Your task to perform on an android device: change the clock display to show seconds Image 0: 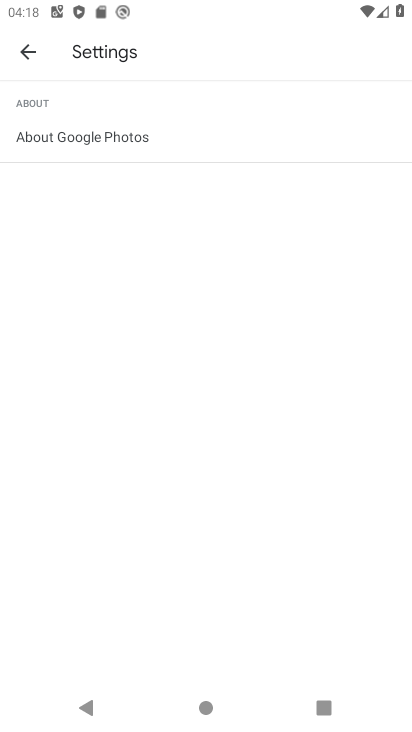
Step 0: press home button
Your task to perform on an android device: change the clock display to show seconds Image 1: 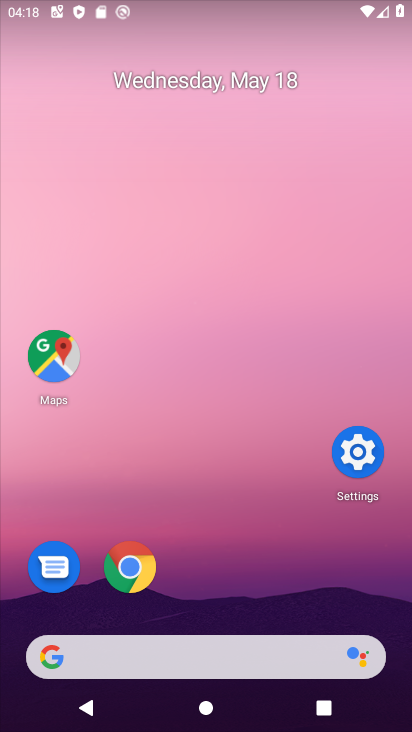
Step 1: drag from (207, 545) to (278, 96)
Your task to perform on an android device: change the clock display to show seconds Image 2: 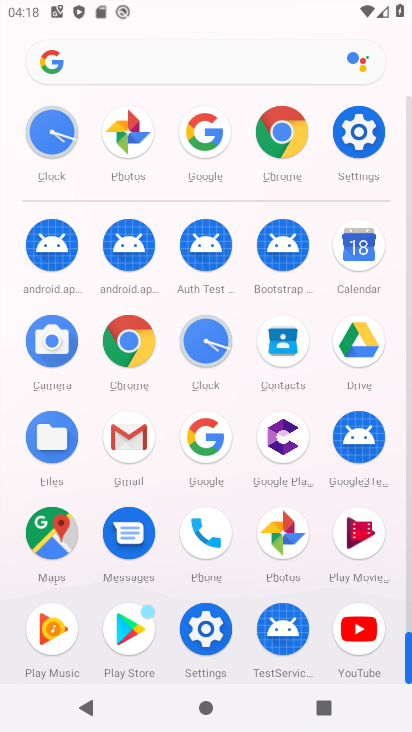
Step 2: click (44, 125)
Your task to perform on an android device: change the clock display to show seconds Image 3: 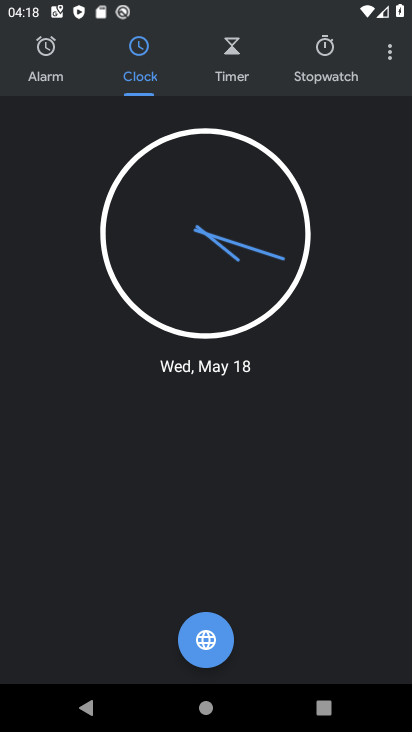
Step 3: click (385, 52)
Your task to perform on an android device: change the clock display to show seconds Image 4: 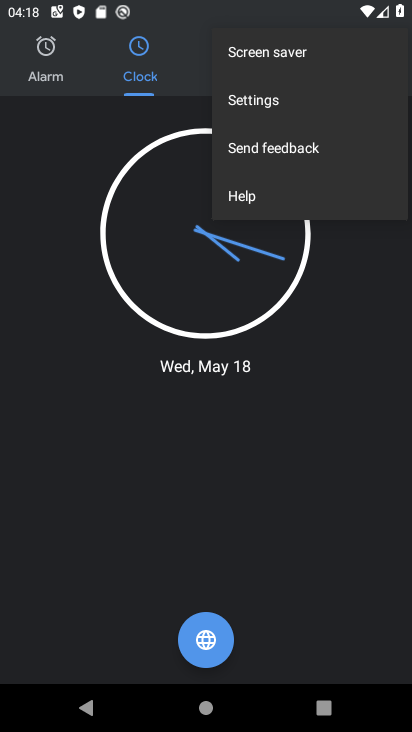
Step 4: click (267, 104)
Your task to perform on an android device: change the clock display to show seconds Image 5: 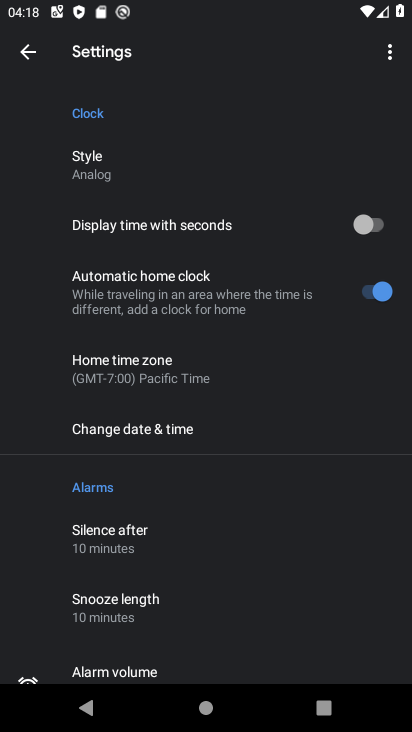
Step 5: click (366, 223)
Your task to perform on an android device: change the clock display to show seconds Image 6: 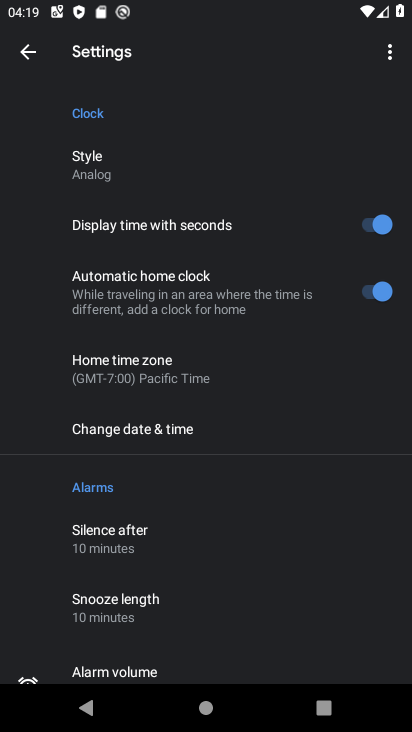
Step 6: task complete